Your task to perform on an android device: What's the weather today? Image 0: 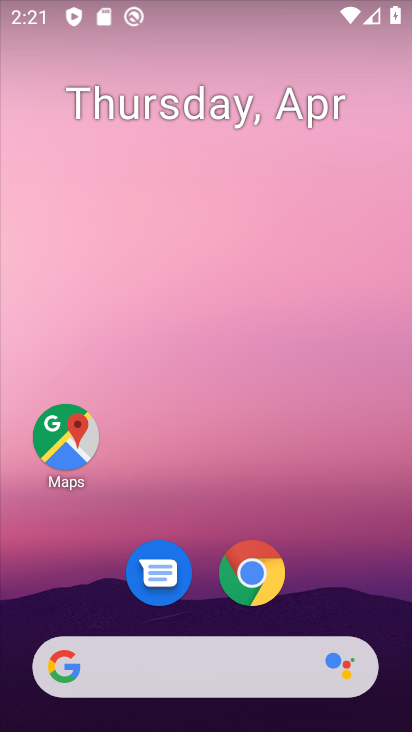
Step 0: drag from (349, 589) to (196, 16)
Your task to perform on an android device: What's the weather today? Image 1: 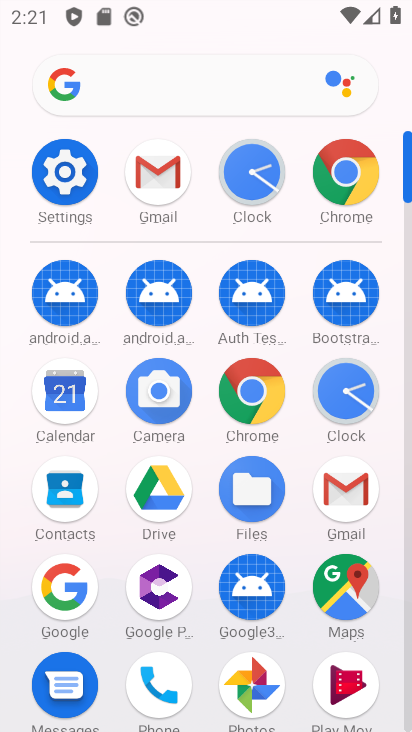
Step 1: click (67, 584)
Your task to perform on an android device: What's the weather today? Image 2: 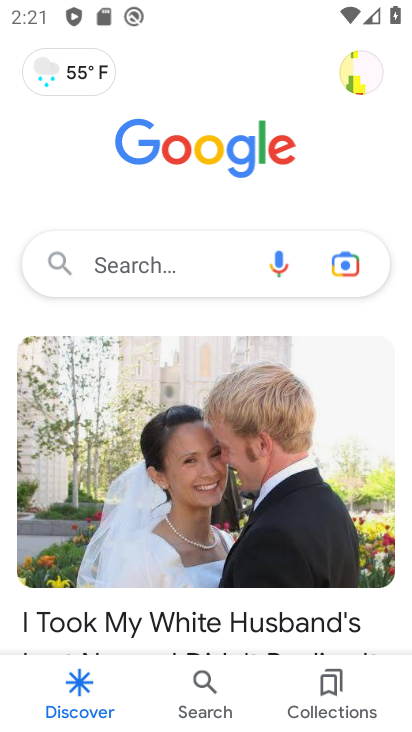
Step 2: click (189, 267)
Your task to perform on an android device: What's the weather today? Image 3: 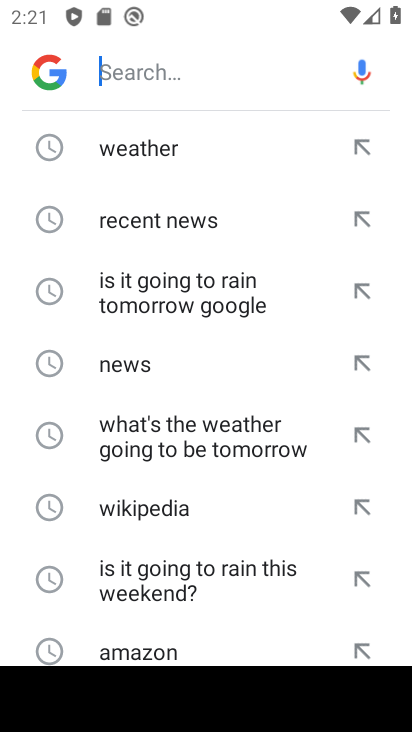
Step 3: click (175, 170)
Your task to perform on an android device: What's the weather today? Image 4: 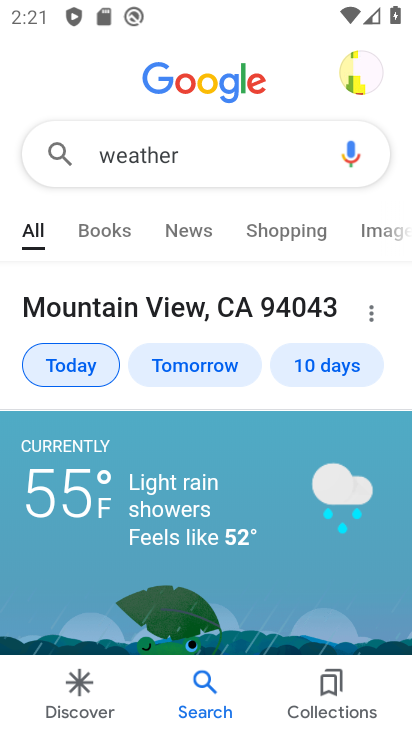
Step 4: task complete